Your task to perform on an android device: What's on my calendar today? Image 0: 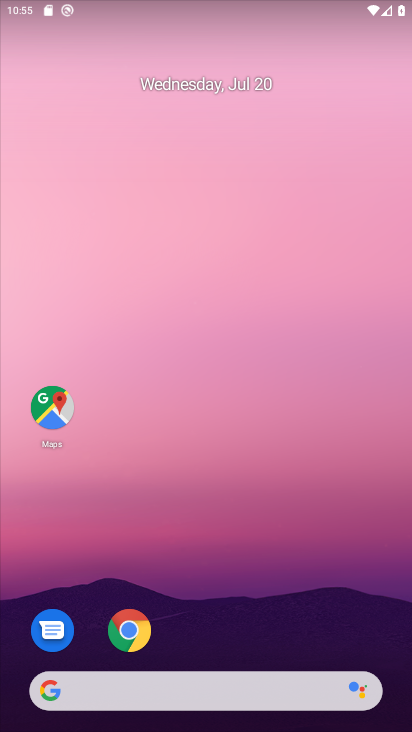
Step 0: press home button
Your task to perform on an android device: What's on my calendar today? Image 1: 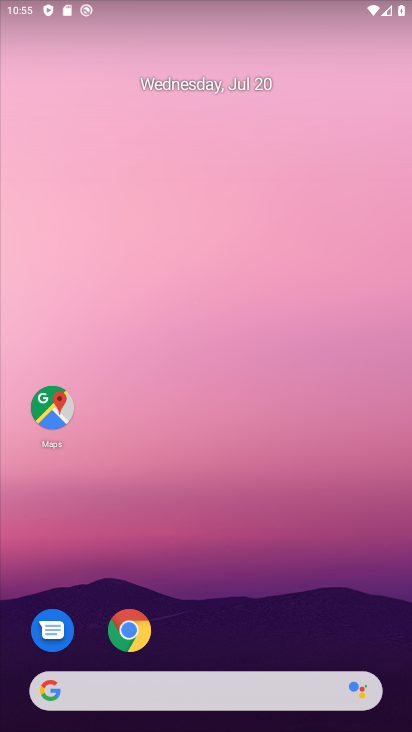
Step 1: drag from (252, 656) to (215, 125)
Your task to perform on an android device: What's on my calendar today? Image 2: 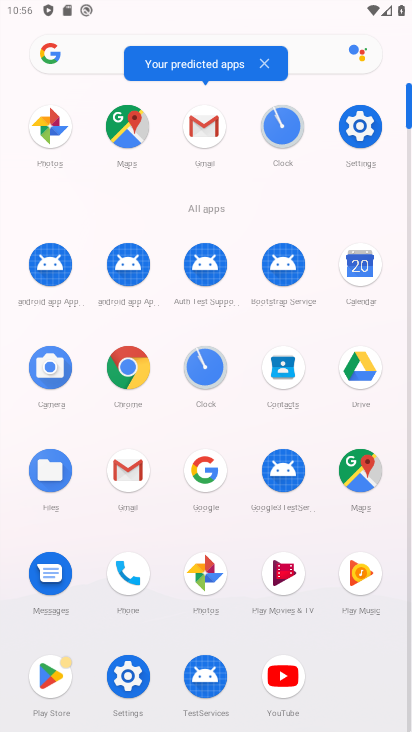
Step 2: click (375, 263)
Your task to perform on an android device: What's on my calendar today? Image 3: 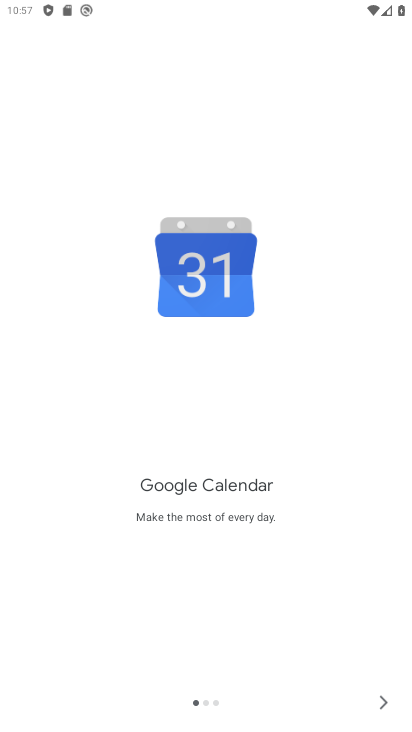
Step 3: click (365, 685)
Your task to perform on an android device: What's on my calendar today? Image 4: 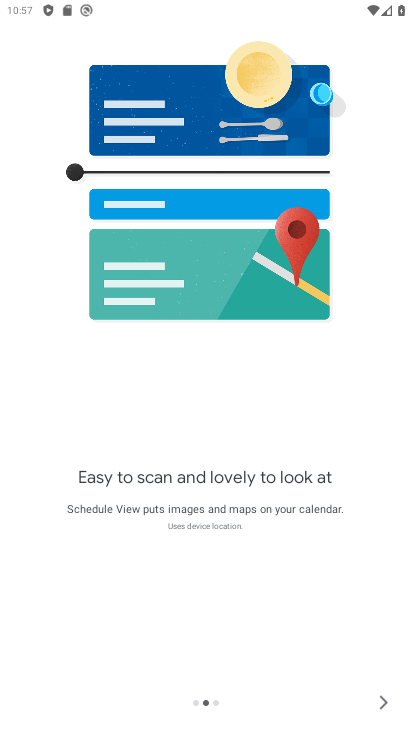
Step 4: click (385, 708)
Your task to perform on an android device: What's on my calendar today? Image 5: 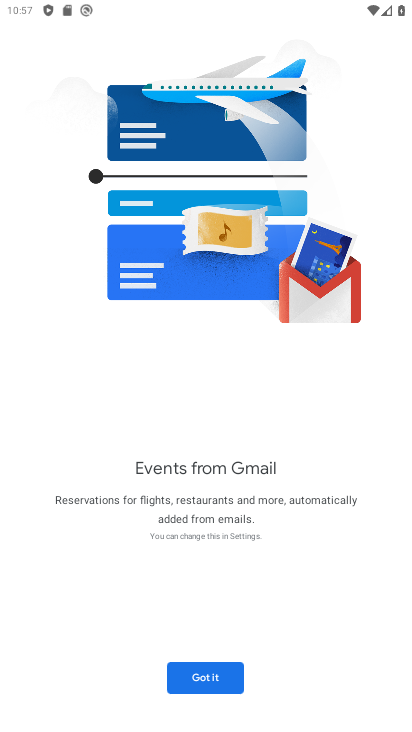
Step 5: click (217, 670)
Your task to perform on an android device: What's on my calendar today? Image 6: 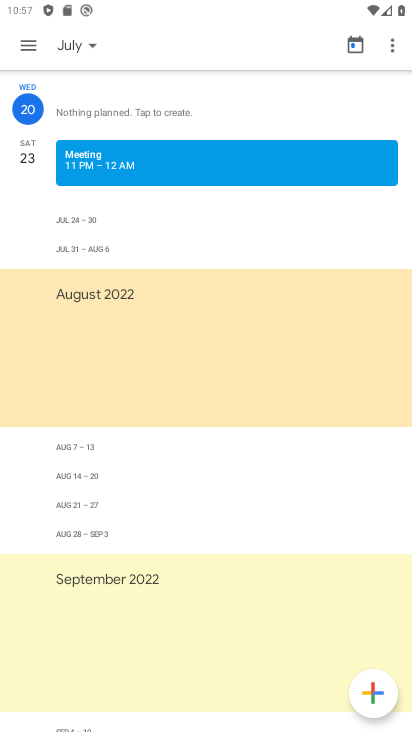
Step 6: task complete